Your task to perform on an android device: Toggle the flashlight Image 0: 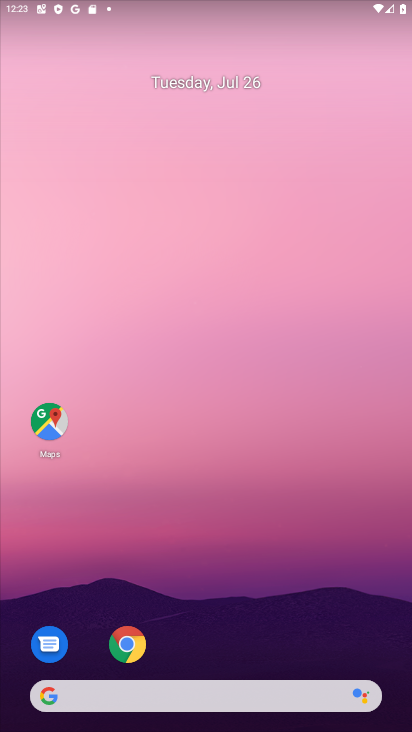
Step 0: drag from (190, 1) to (264, 531)
Your task to perform on an android device: Toggle the flashlight Image 1: 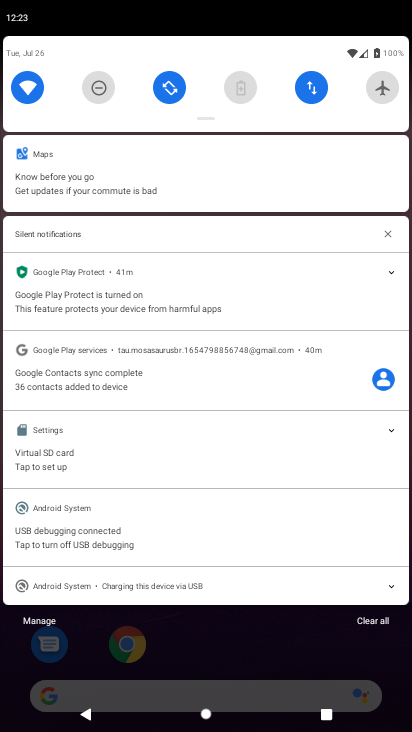
Step 1: task complete